Your task to perform on an android device: see creations saved in the google photos Image 0: 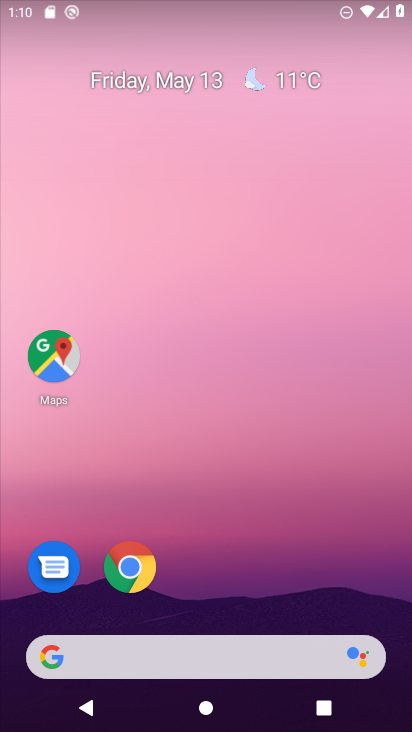
Step 0: drag from (225, 602) to (221, 47)
Your task to perform on an android device: see creations saved in the google photos Image 1: 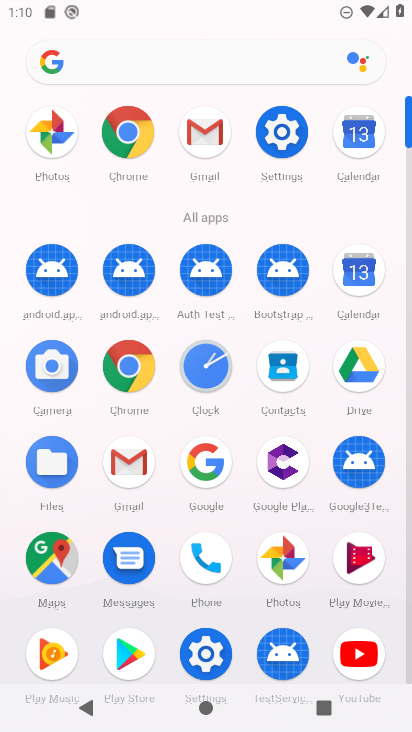
Step 1: click (283, 552)
Your task to perform on an android device: see creations saved in the google photos Image 2: 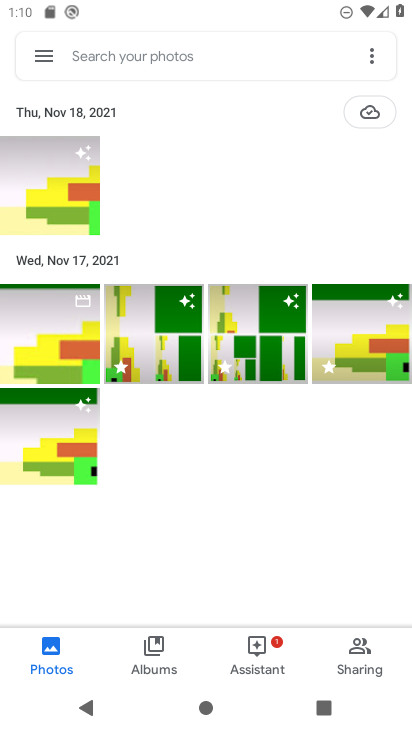
Step 2: click (128, 53)
Your task to perform on an android device: see creations saved in the google photos Image 3: 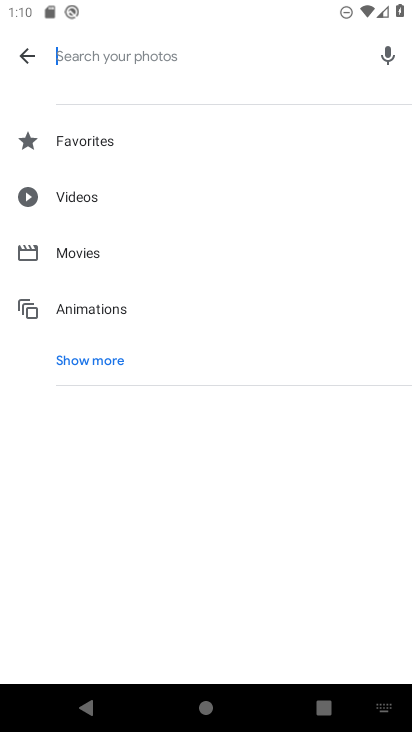
Step 3: click (83, 357)
Your task to perform on an android device: see creations saved in the google photos Image 4: 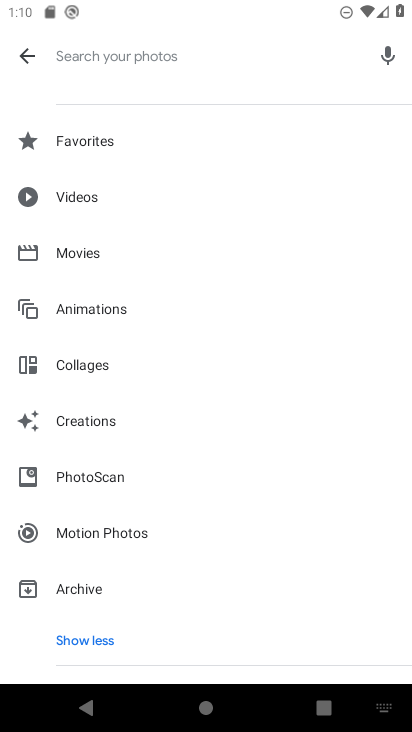
Step 4: click (125, 424)
Your task to perform on an android device: see creations saved in the google photos Image 5: 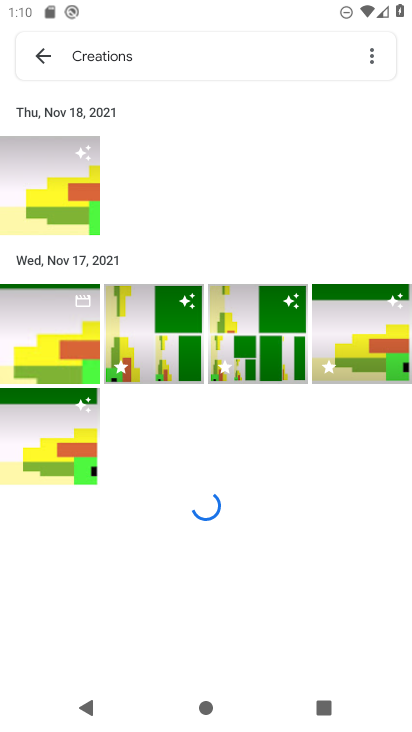
Step 5: task complete